Your task to perform on an android device: Go to network settings Image 0: 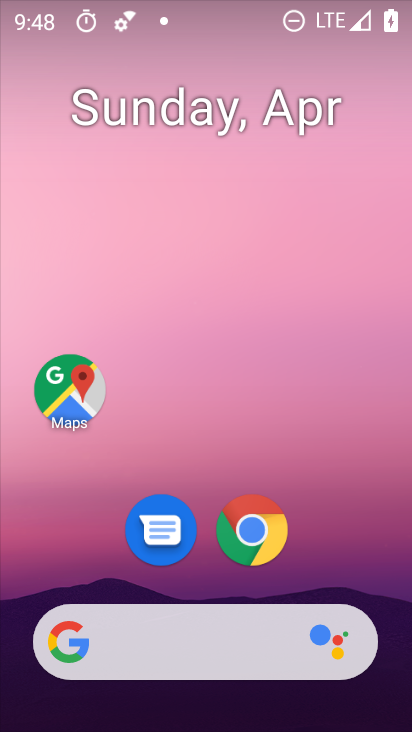
Step 0: drag from (384, 600) to (379, 18)
Your task to perform on an android device: Go to network settings Image 1: 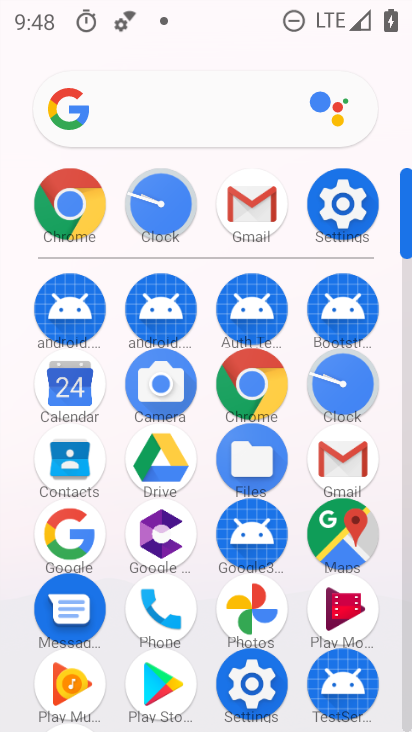
Step 1: click (337, 209)
Your task to perform on an android device: Go to network settings Image 2: 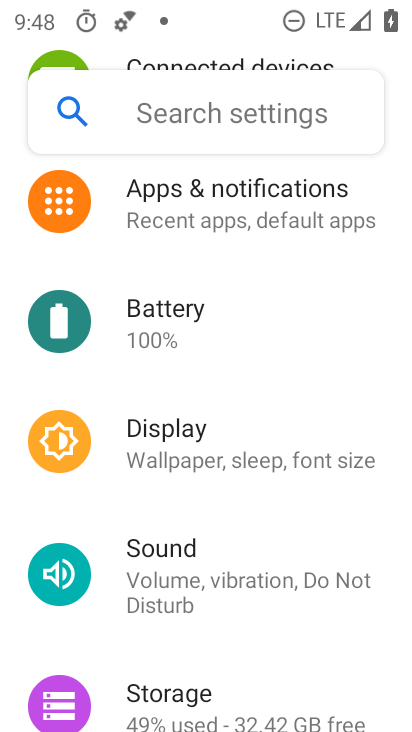
Step 2: drag from (385, 246) to (357, 609)
Your task to perform on an android device: Go to network settings Image 3: 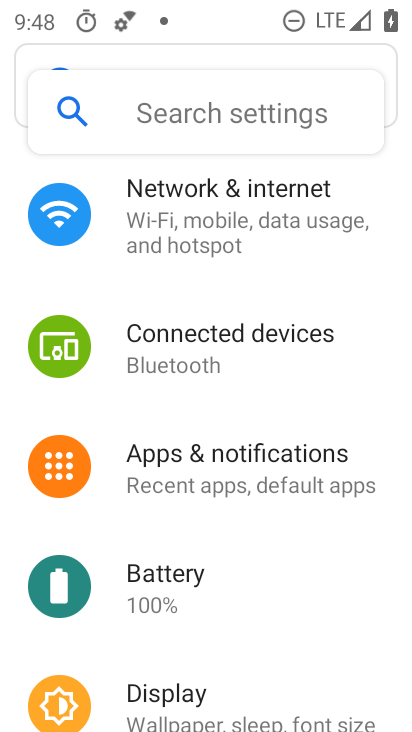
Step 3: click (168, 211)
Your task to perform on an android device: Go to network settings Image 4: 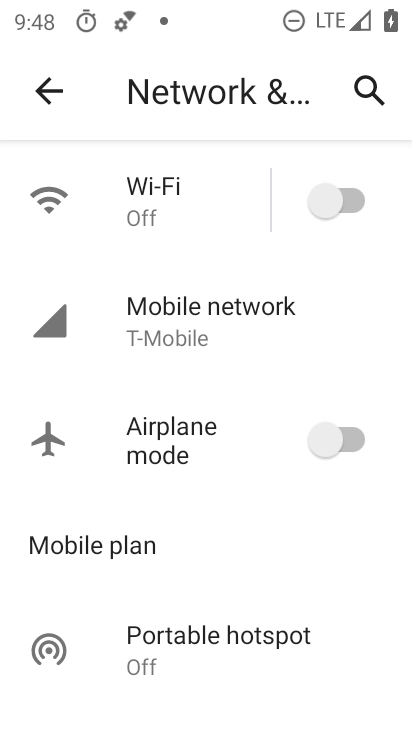
Step 4: click (154, 345)
Your task to perform on an android device: Go to network settings Image 5: 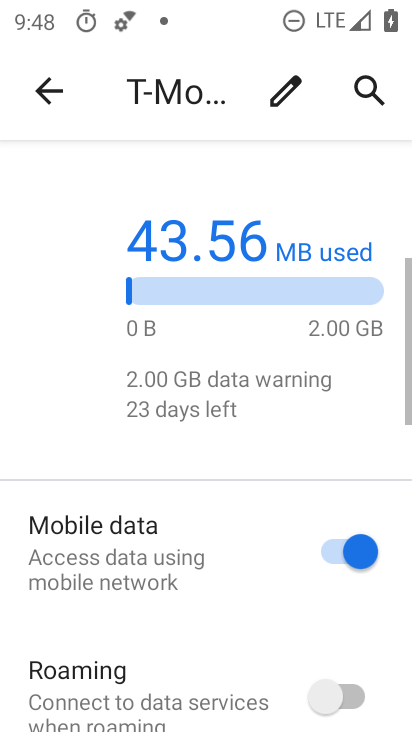
Step 5: drag from (201, 564) to (149, 20)
Your task to perform on an android device: Go to network settings Image 6: 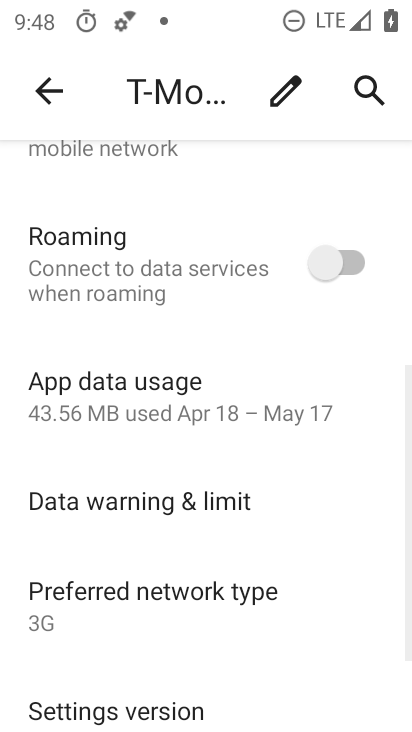
Step 6: drag from (220, 545) to (189, 100)
Your task to perform on an android device: Go to network settings Image 7: 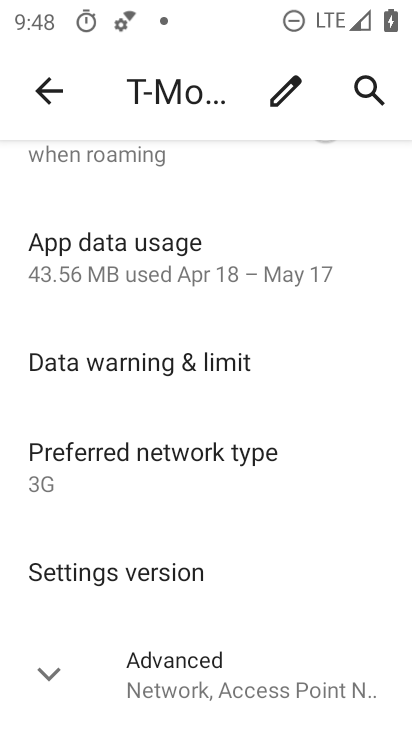
Step 7: click (51, 694)
Your task to perform on an android device: Go to network settings Image 8: 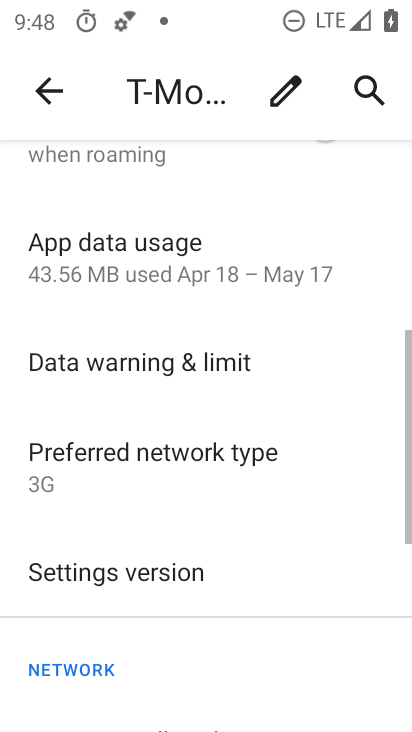
Step 8: task complete